Your task to perform on an android device: stop showing notifications on the lock screen Image 0: 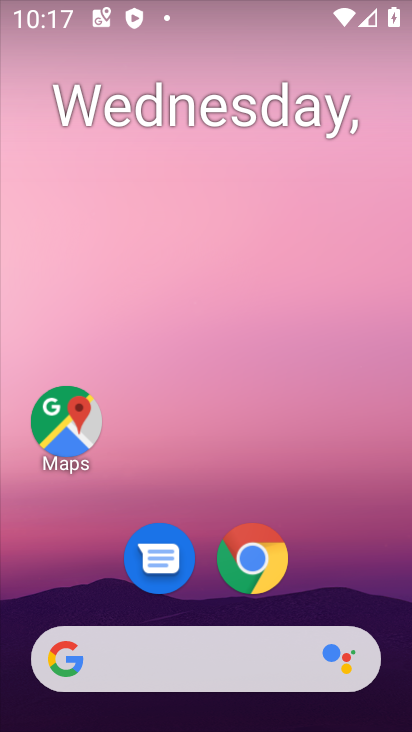
Step 0: drag from (57, 541) to (205, 216)
Your task to perform on an android device: stop showing notifications on the lock screen Image 1: 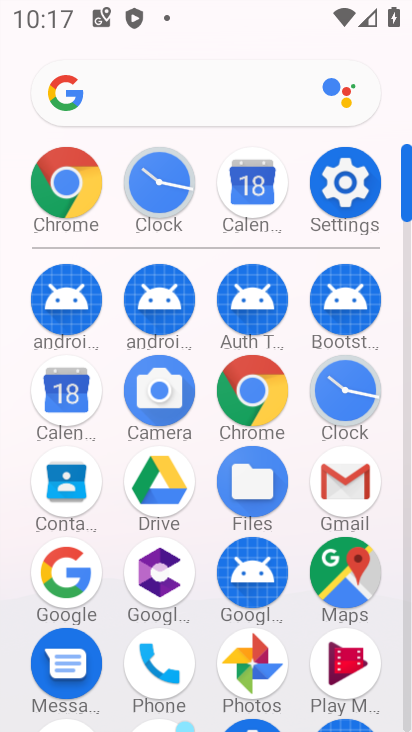
Step 1: click (349, 169)
Your task to perform on an android device: stop showing notifications on the lock screen Image 2: 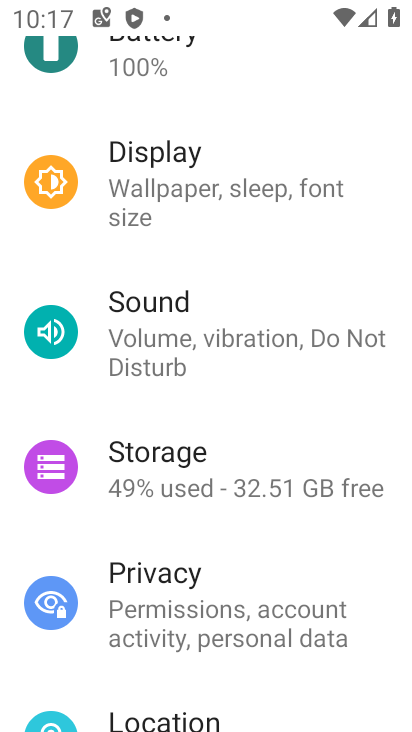
Step 2: drag from (232, 183) to (233, 554)
Your task to perform on an android device: stop showing notifications on the lock screen Image 3: 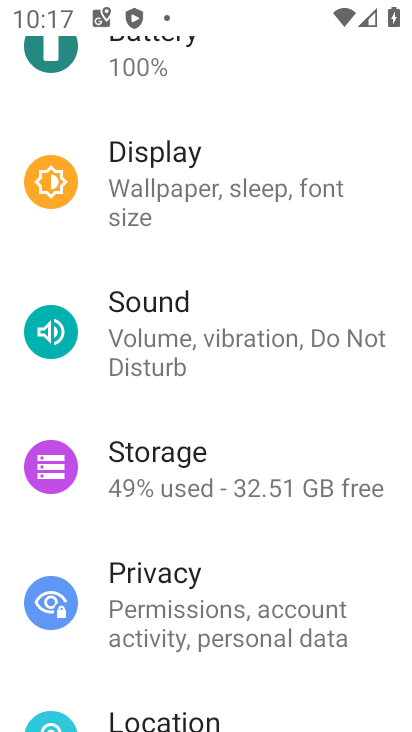
Step 3: drag from (202, 128) to (190, 581)
Your task to perform on an android device: stop showing notifications on the lock screen Image 4: 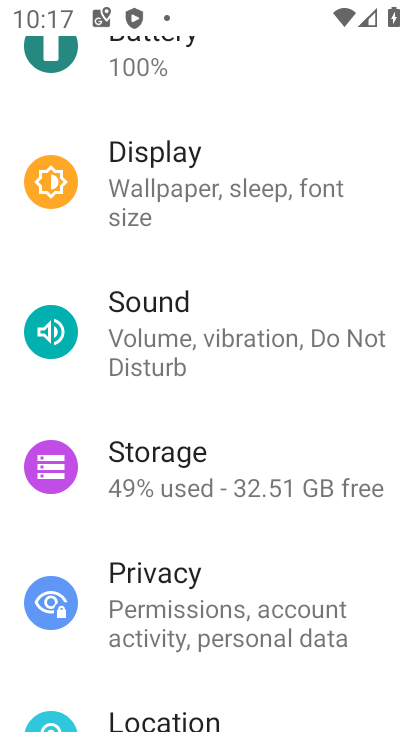
Step 4: drag from (130, 128) to (140, 694)
Your task to perform on an android device: stop showing notifications on the lock screen Image 5: 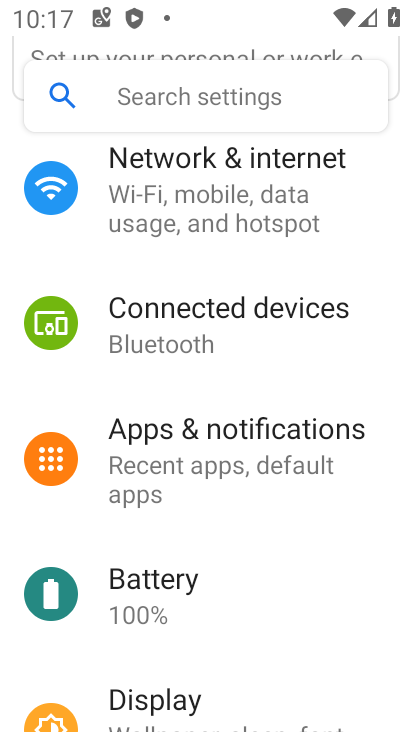
Step 5: click (244, 452)
Your task to perform on an android device: stop showing notifications on the lock screen Image 6: 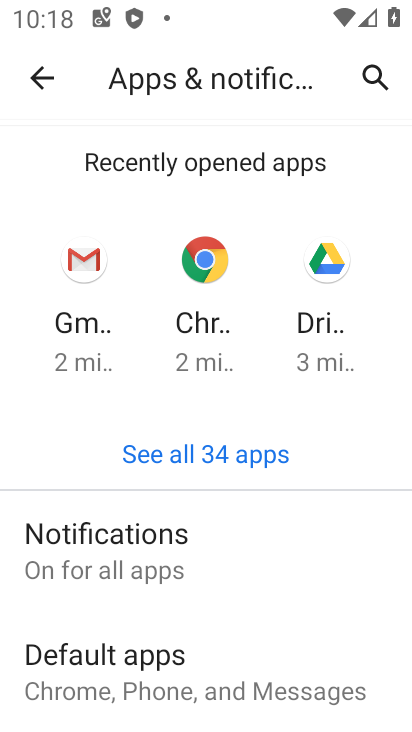
Step 6: click (143, 568)
Your task to perform on an android device: stop showing notifications on the lock screen Image 7: 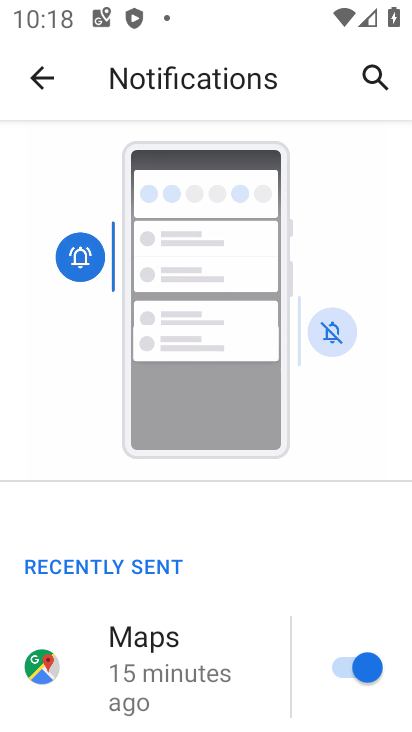
Step 7: drag from (34, 585) to (186, 180)
Your task to perform on an android device: stop showing notifications on the lock screen Image 8: 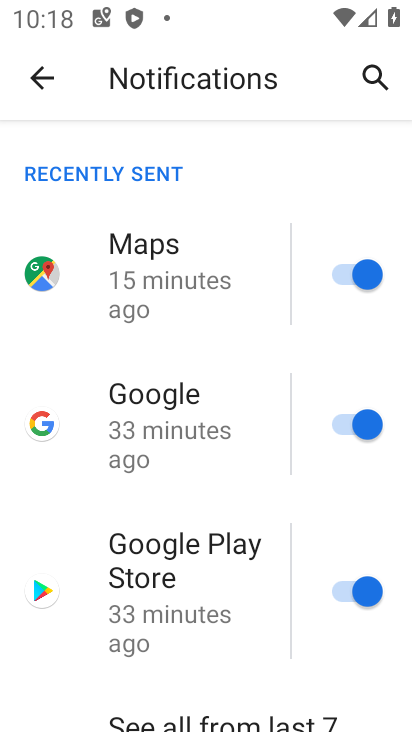
Step 8: drag from (4, 599) to (191, 81)
Your task to perform on an android device: stop showing notifications on the lock screen Image 9: 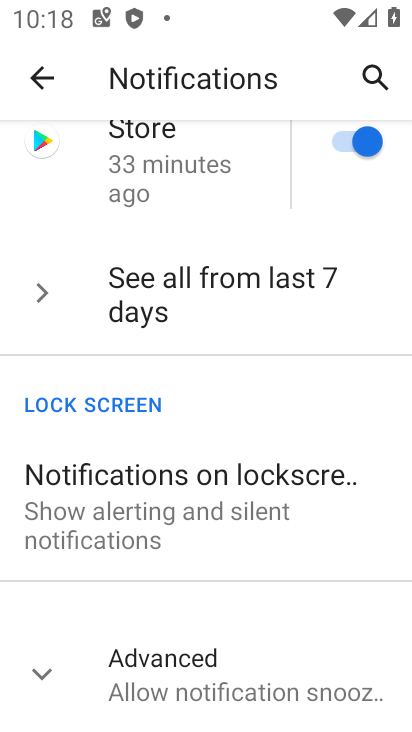
Step 9: click (217, 486)
Your task to perform on an android device: stop showing notifications on the lock screen Image 10: 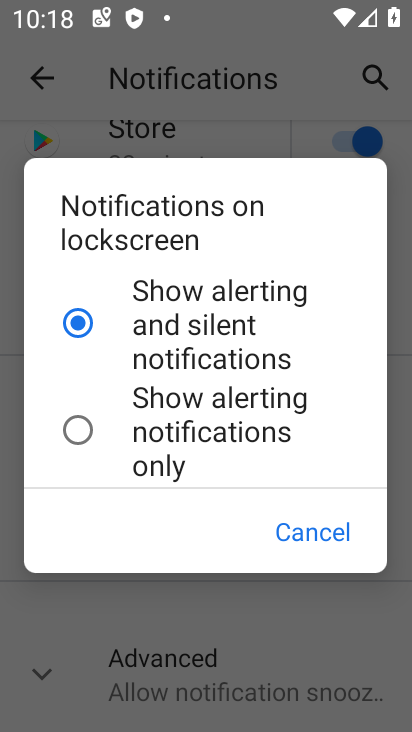
Step 10: click (74, 441)
Your task to perform on an android device: stop showing notifications on the lock screen Image 11: 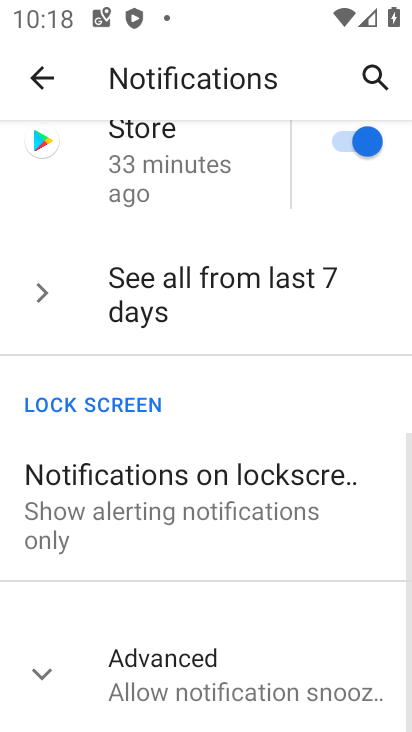
Step 11: click (148, 507)
Your task to perform on an android device: stop showing notifications on the lock screen Image 12: 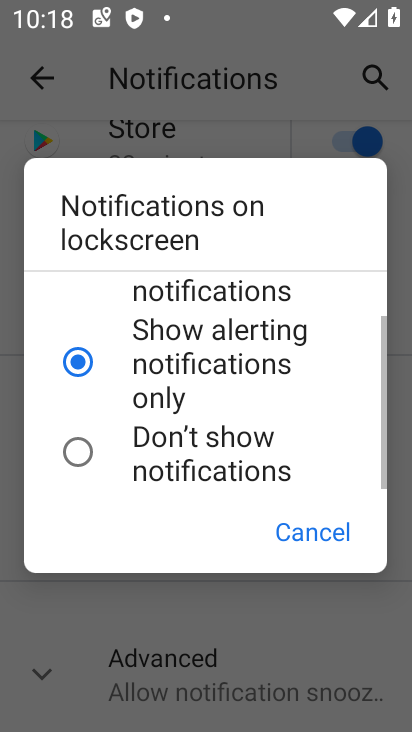
Step 12: drag from (53, 483) to (213, 162)
Your task to perform on an android device: stop showing notifications on the lock screen Image 13: 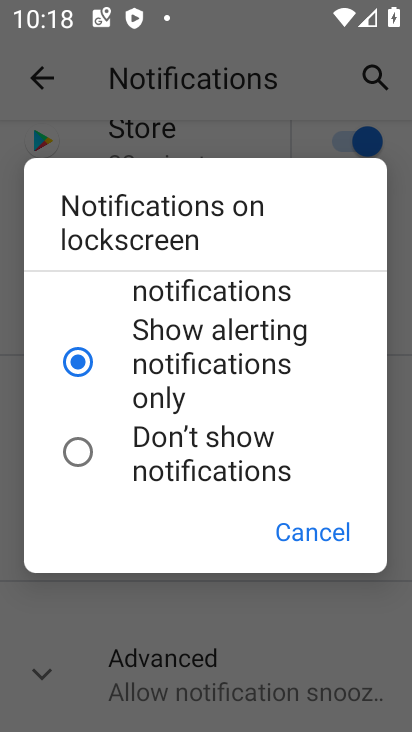
Step 13: drag from (146, 481) to (260, 259)
Your task to perform on an android device: stop showing notifications on the lock screen Image 14: 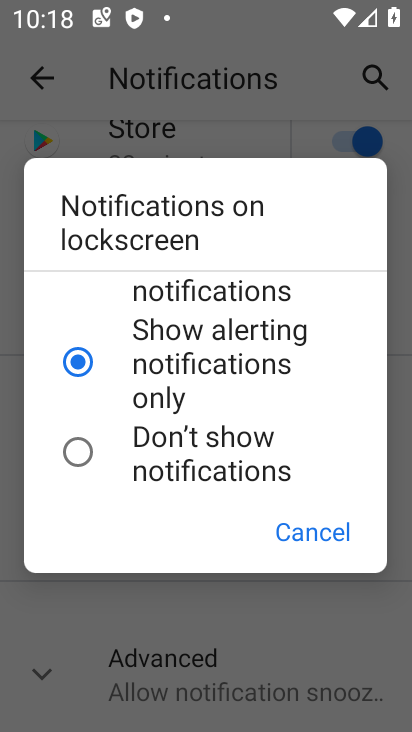
Step 14: click (87, 434)
Your task to perform on an android device: stop showing notifications on the lock screen Image 15: 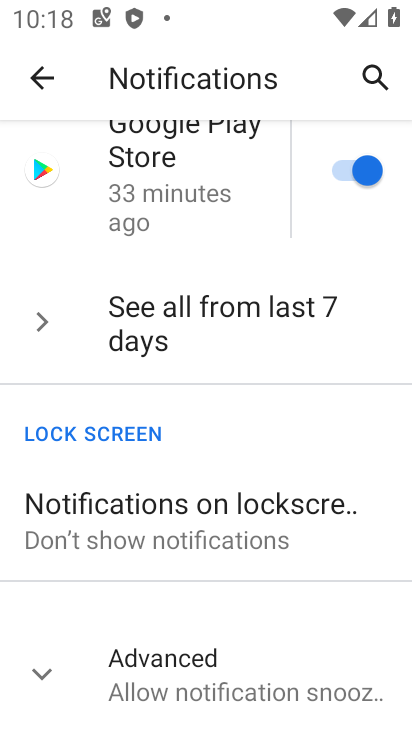
Step 15: task complete